Your task to perform on an android device: set the timer Image 0: 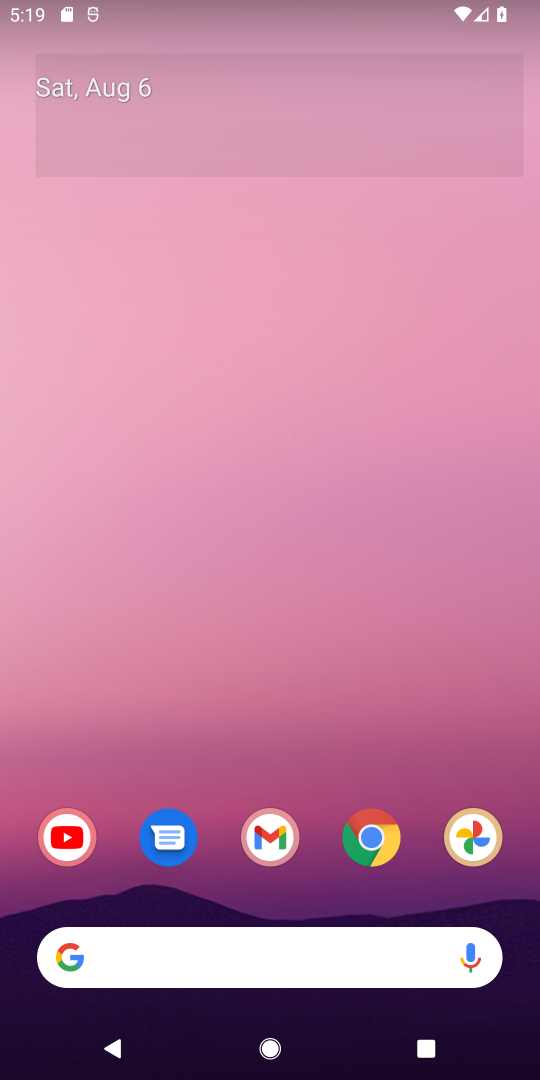
Step 0: drag from (352, 772) to (336, 238)
Your task to perform on an android device: set the timer Image 1: 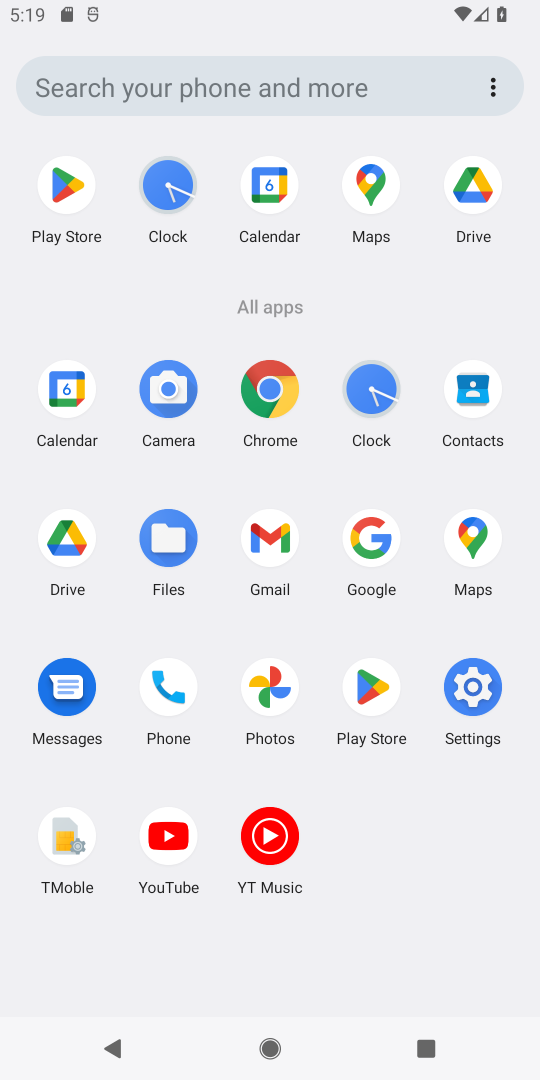
Step 1: click (361, 395)
Your task to perform on an android device: set the timer Image 2: 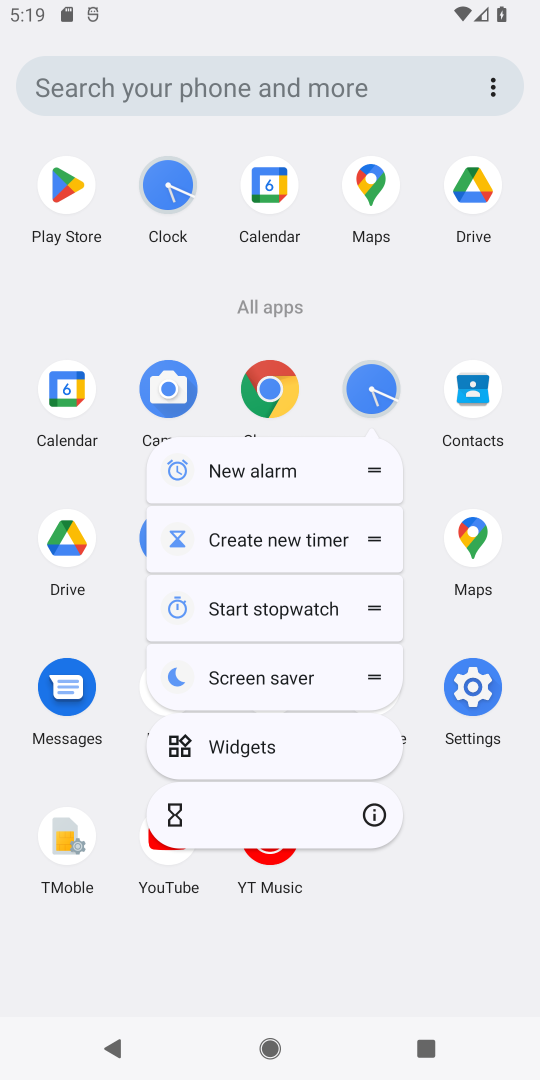
Step 2: click (378, 387)
Your task to perform on an android device: set the timer Image 3: 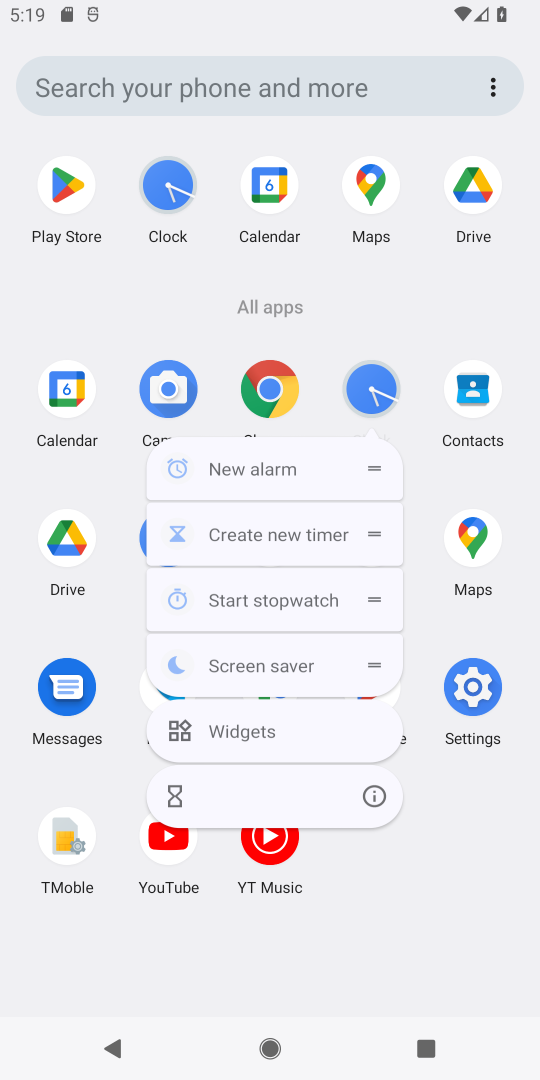
Step 3: click (378, 387)
Your task to perform on an android device: set the timer Image 4: 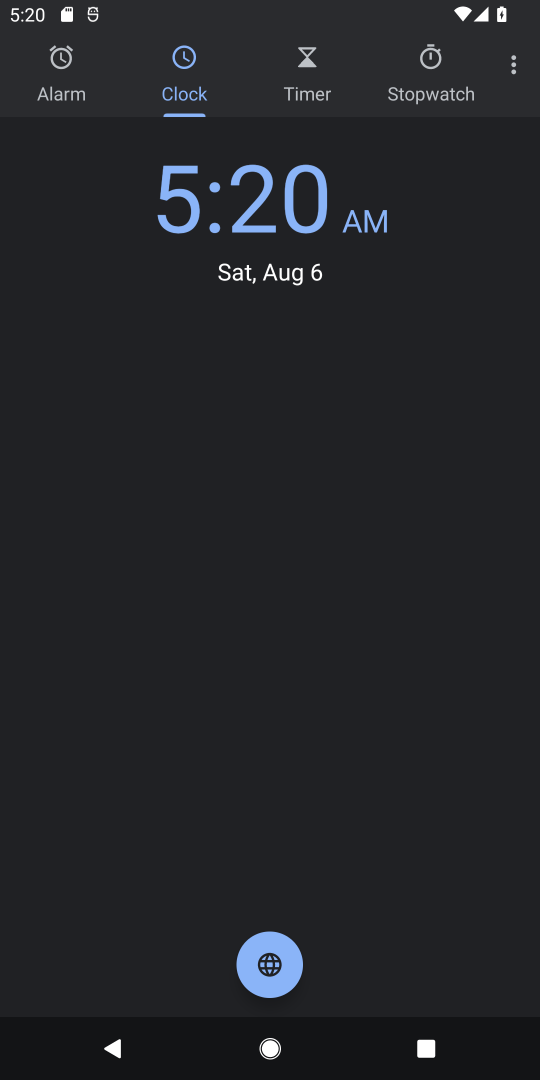
Step 4: task complete